Your task to perform on an android device: toggle wifi Image 0: 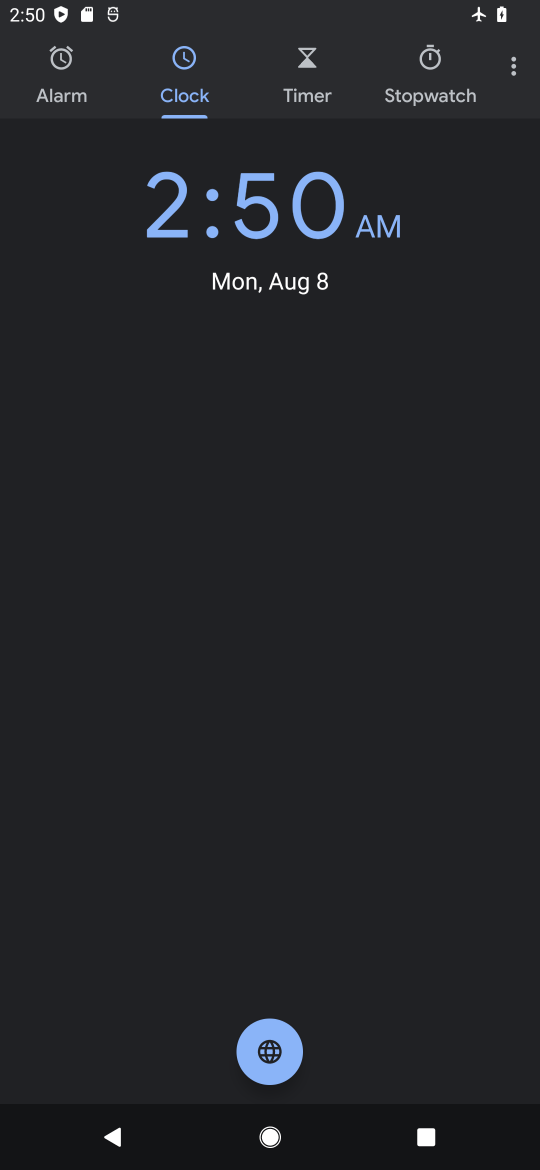
Step 0: press home button
Your task to perform on an android device: toggle wifi Image 1: 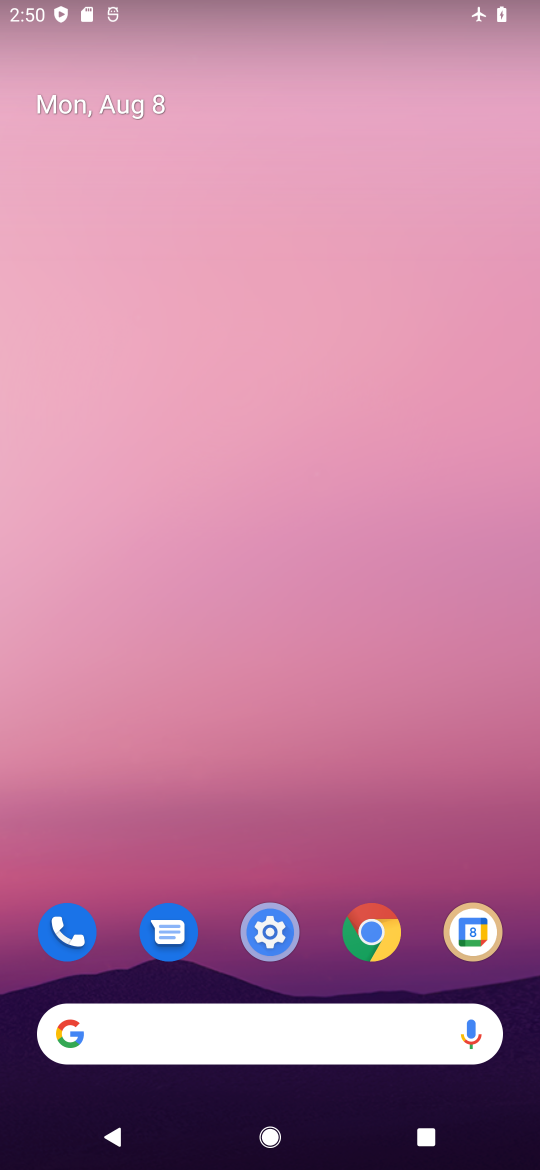
Step 1: drag from (401, 864) to (433, 142)
Your task to perform on an android device: toggle wifi Image 2: 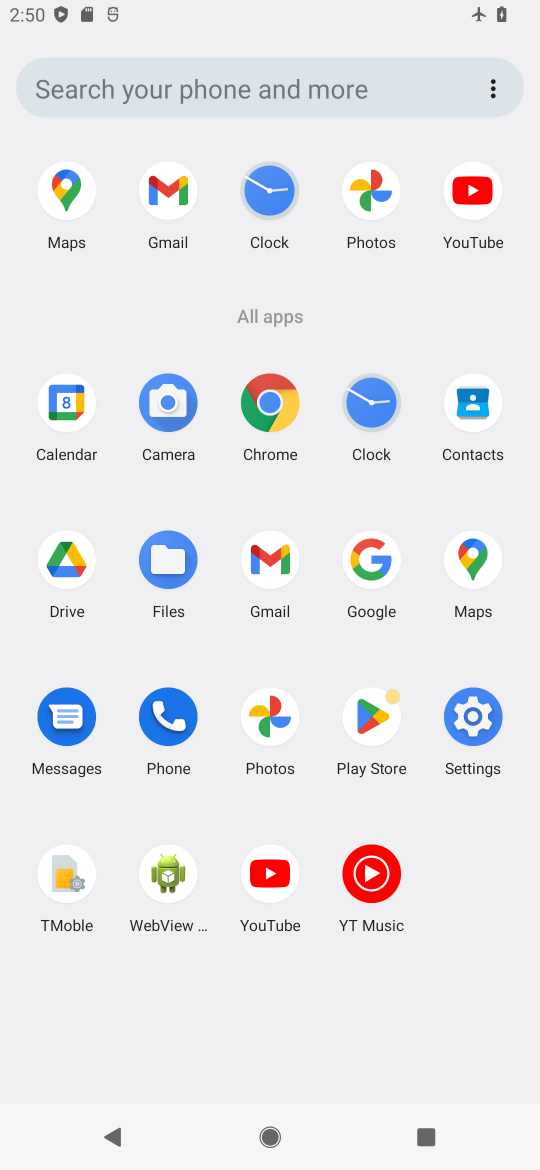
Step 2: click (476, 699)
Your task to perform on an android device: toggle wifi Image 3: 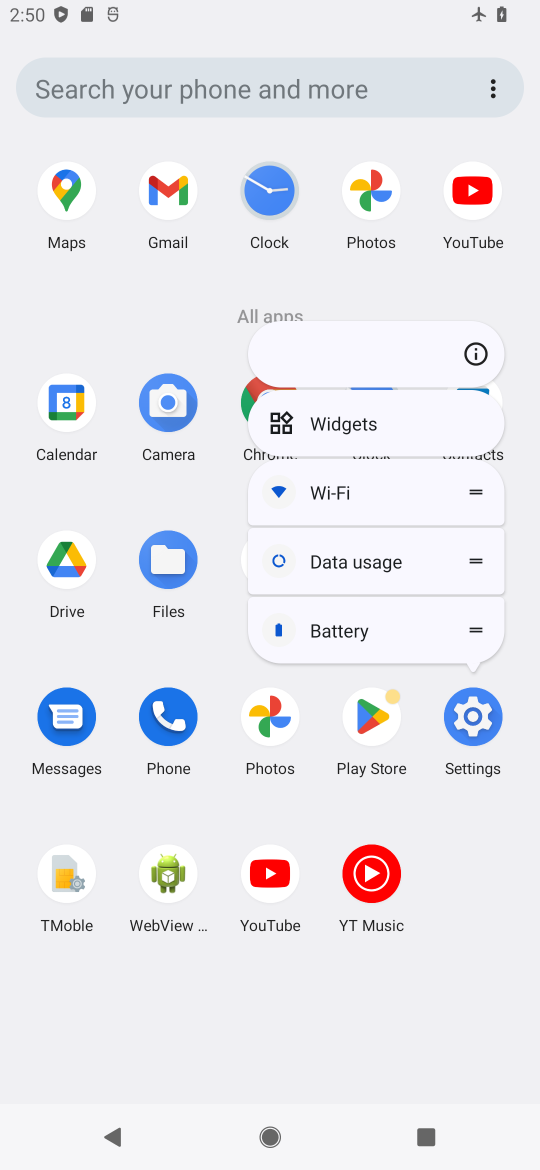
Step 3: click (476, 698)
Your task to perform on an android device: toggle wifi Image 4: 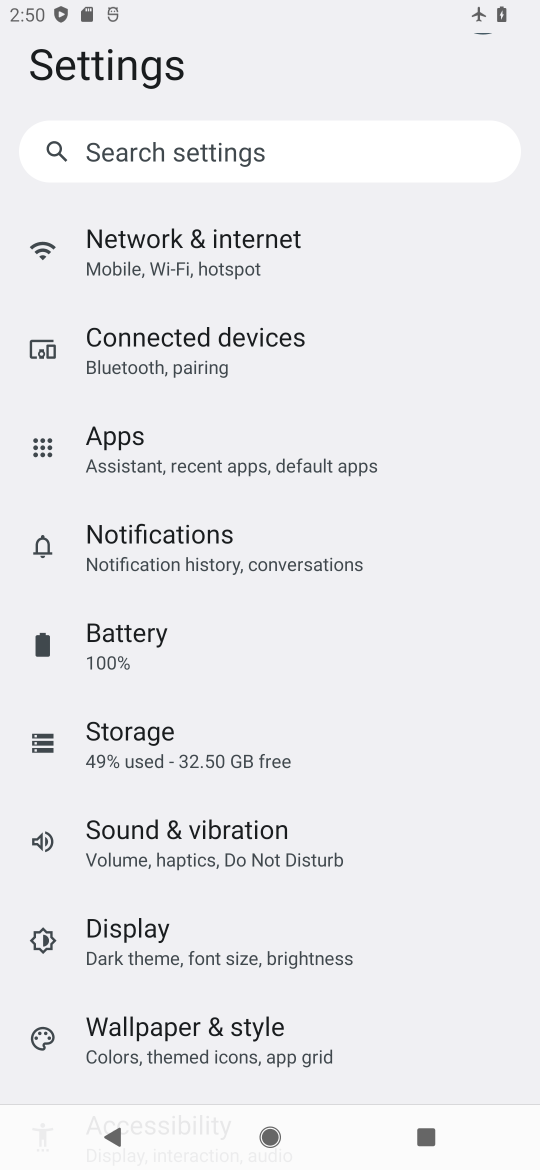
Step 4: click (243, 231)
Your task to perform on an android device: toggle wifi Image 5: 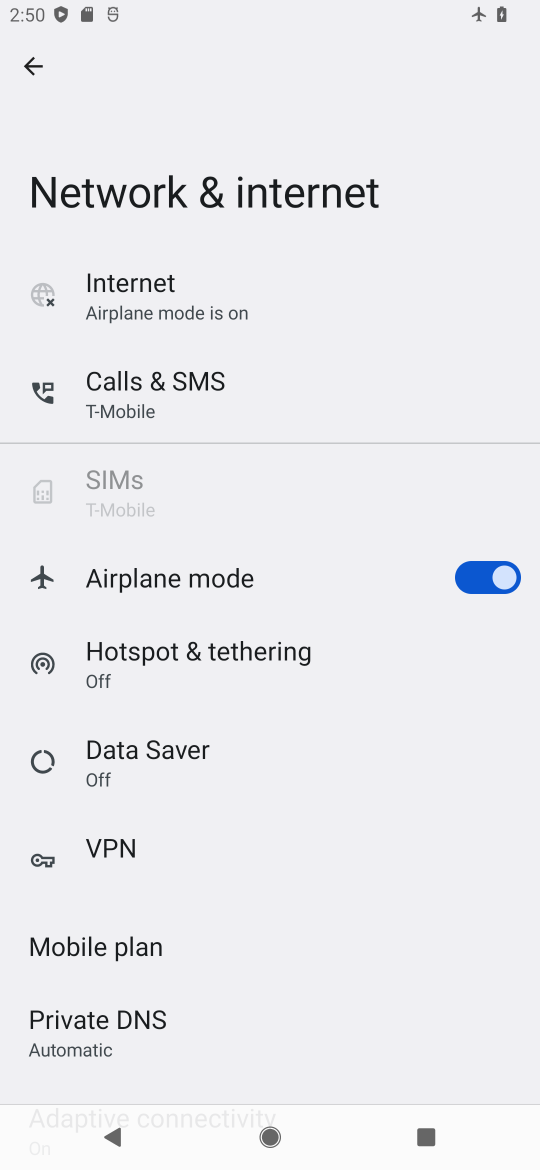
Step 5: click (154, 293)
Your task to perform on an android device: toggle wifi Image 6: 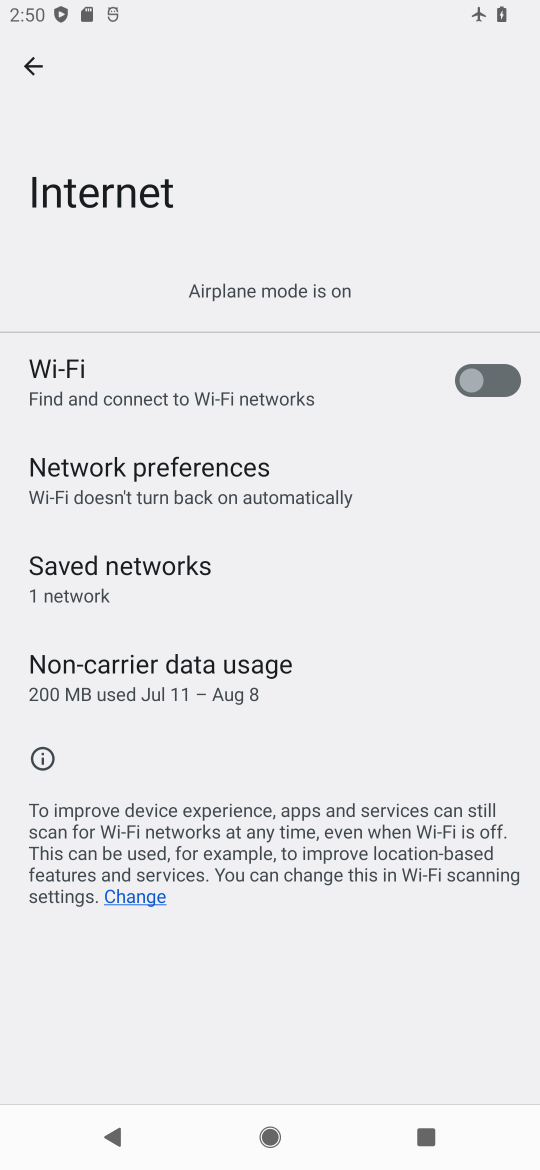
Step 6: click (506, 402)
Your task to perform on an android device: toggle wifi Image 7: 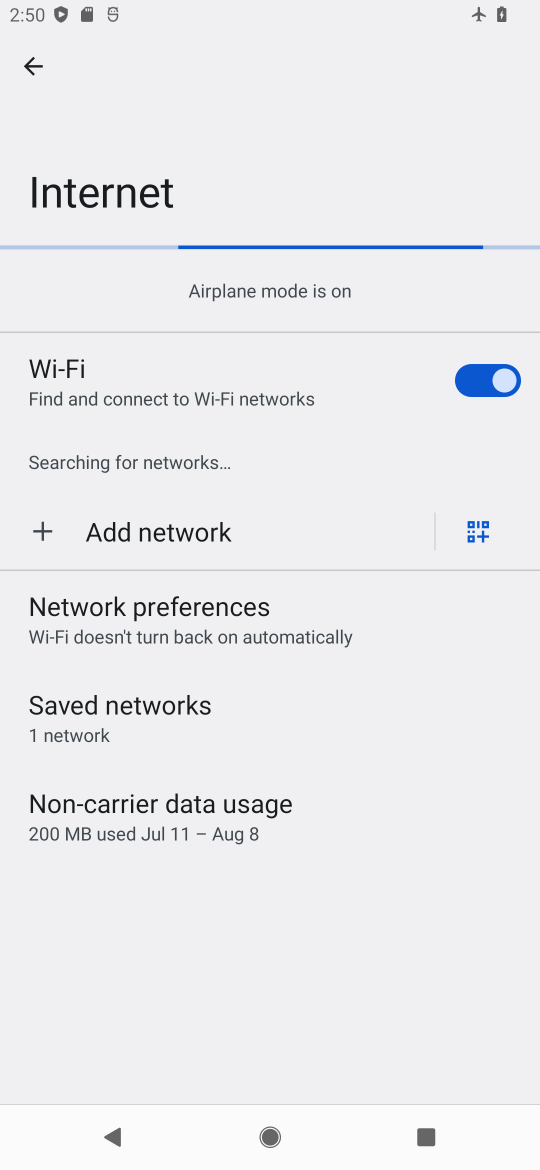
Step 7: task complete